Your task to perform on an android device: delete a single message in the gmail app Image 0: 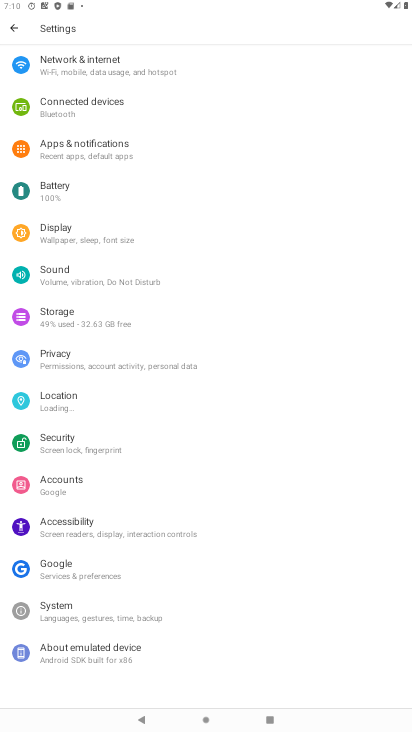
Step 0: press home button
Your task to perform on an android device: delete a single message in the gmail app Image 1: 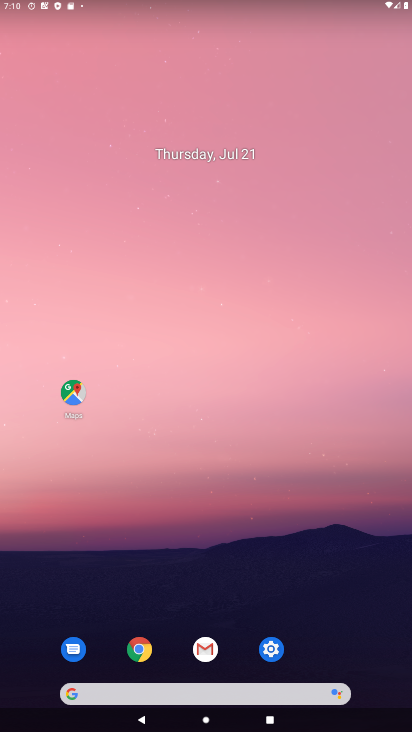
Step 1: click (213, 654)
Your task to perform on an android device: delete a single message in the gmail app Image 2: 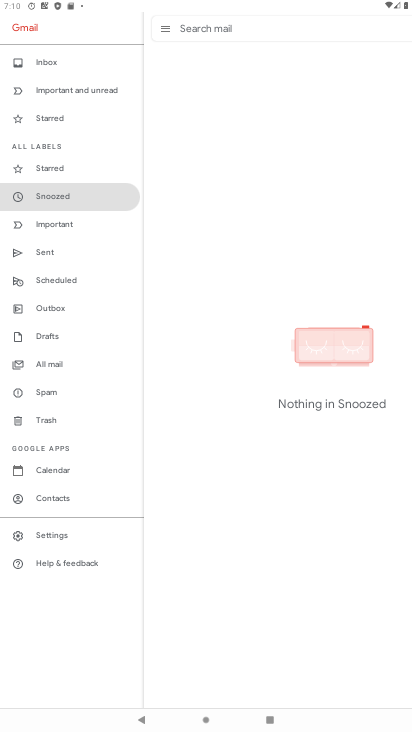
Step 2: click (59, 357)
Your task to perform on an android device: delete a single message in the gmail app Image 3: 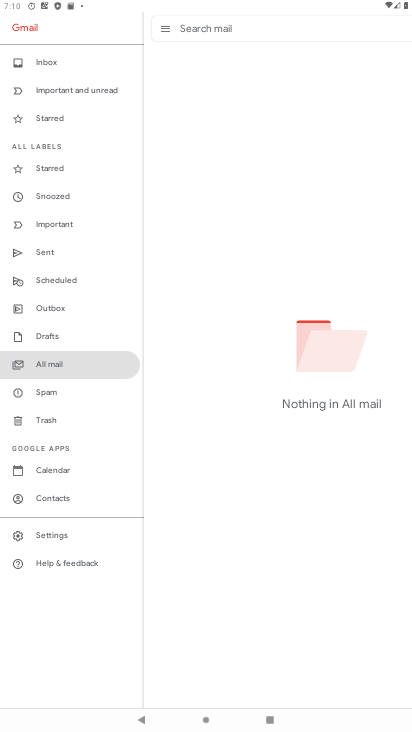
Step 3: task complete